Your task to perform on an android device: Turn off the flashlight Image 0: 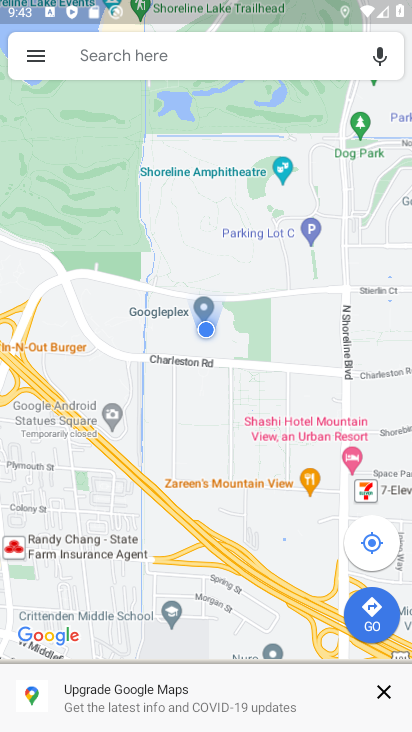
Step 0: press home button
Your task to perform on an android device: Turn off the flashlight Image 1: 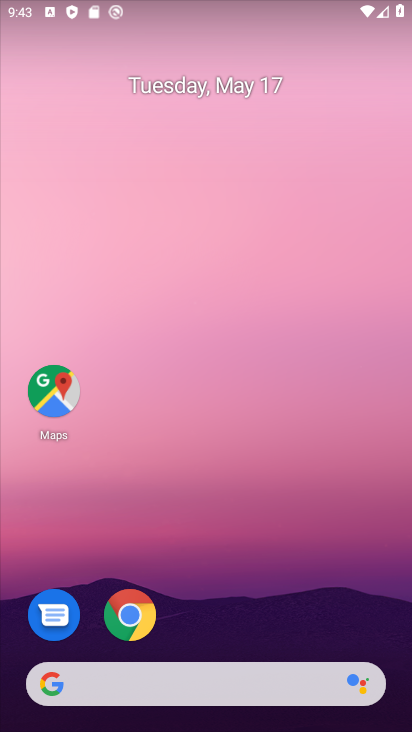
Step 1: drag from (283, 47) to (264, 536)
Your task to perform on an android device: Turn off the flashlight Image 2: 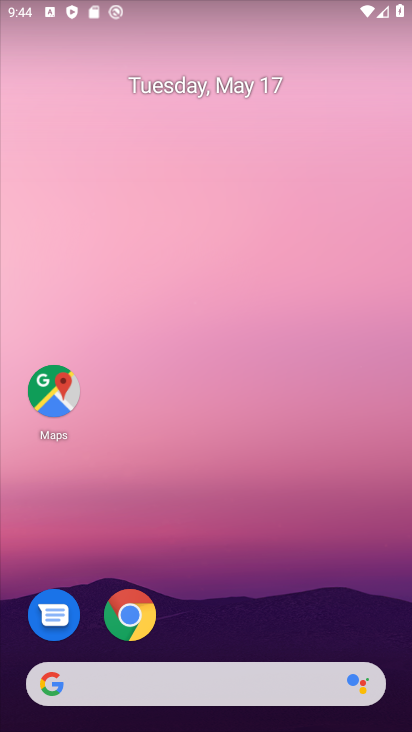
Step 2: drag from (216, 19) to (270, 522)
Your task to perform on an android device: Turn off the flashlight Image 3: 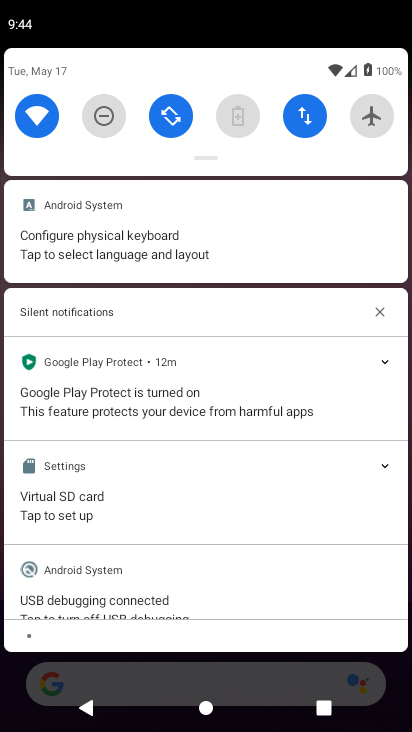
Step 3: drag from (197, 148) to (256, 515)
Your task to perform on an android device: Turn off the flashlight Image 4: 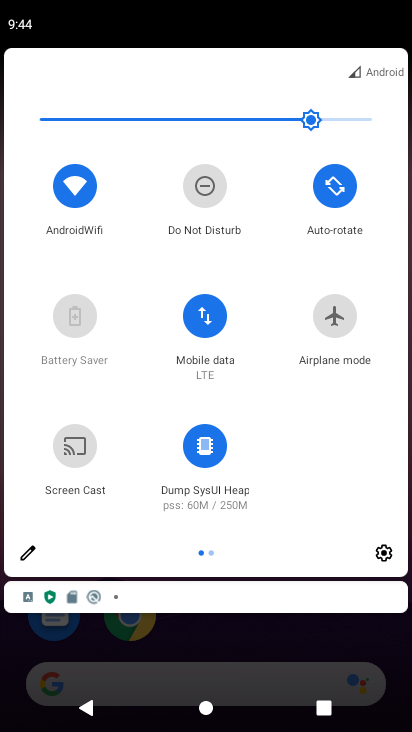
Step 4: click (25, 557)
Your task to perform on an android device: Turn off the flashlight Image 5: 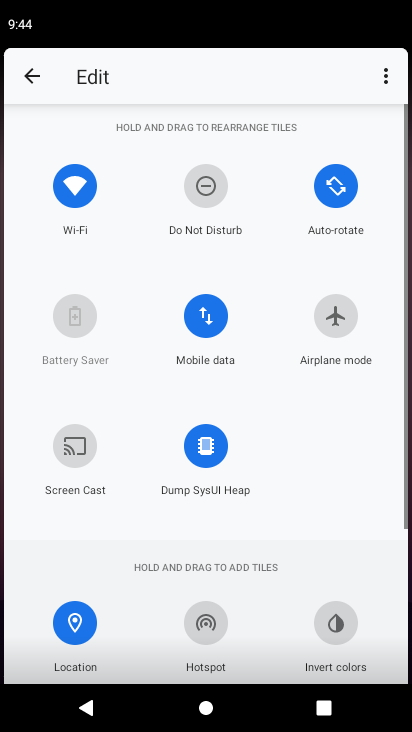
Step 5: task complete